Your task to perform on an android device: turn off notifications settings in the gmail app Image 0: 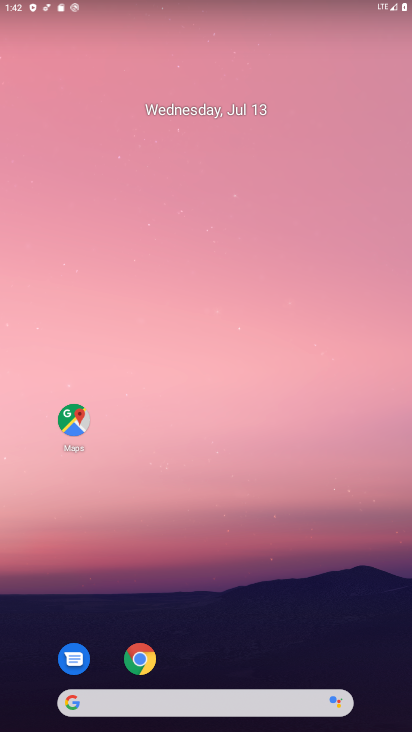
Step 0: drag from (360, 689) to (311, 114)
Your task to perform on an android device: turn off notifications settings in the gmail app Image 1: 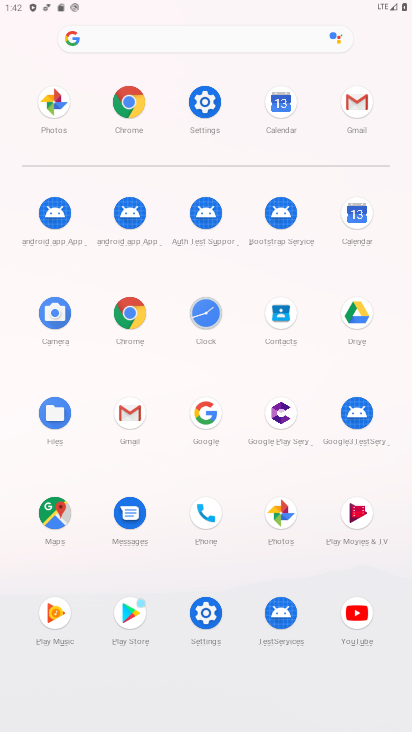
Step 1: click (129, 415)
Your task to perform on an android device: turn off notifications settings in the gmail app Image 2: 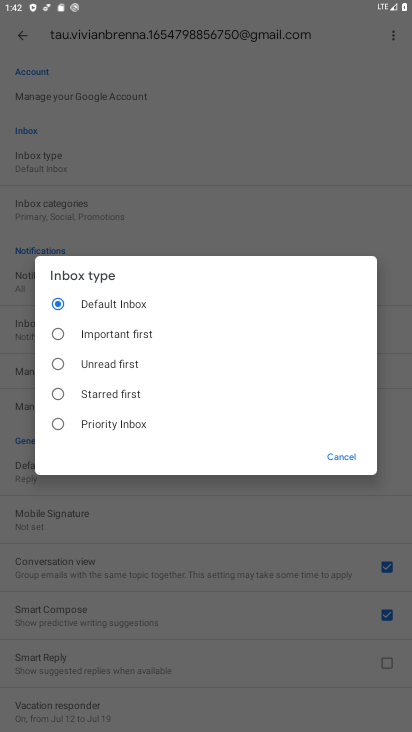
Step 2: click (335, 457)
Your task to perform on an android device: turn off notifications settings in the gmail app Image 3: 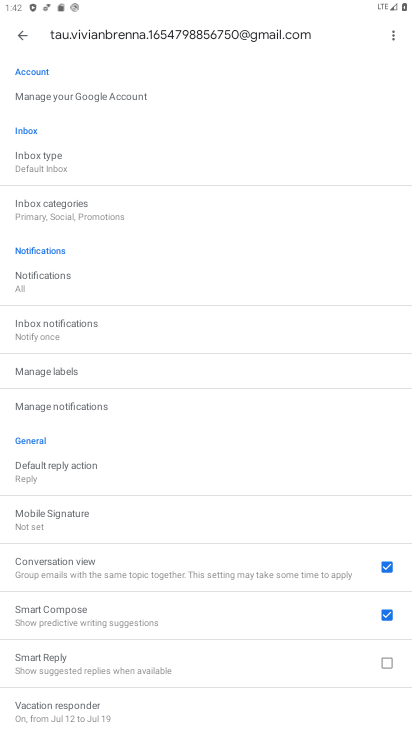
Step 3: click (70, 402)
Your task to perform on an android device: turn off notifications settings in the gmail app Image 4: 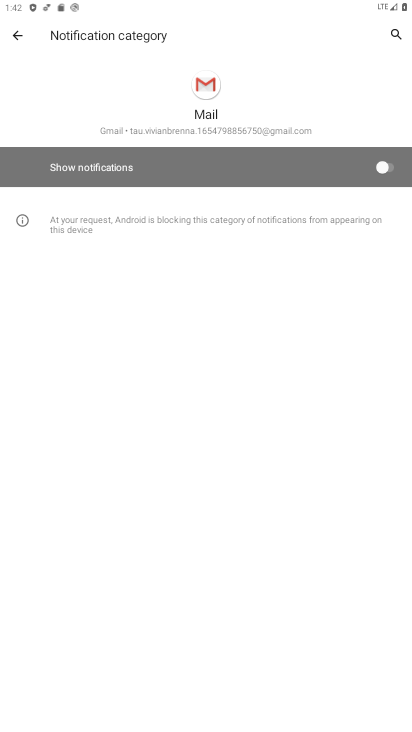
Step 4: task complete